Your task to perform on an android device: turn notification dots on Image 0: 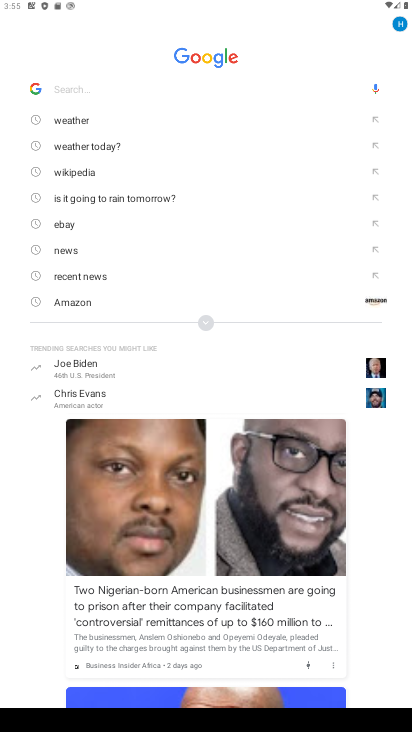
Step 0: press home button
Your task to perform on an android device: turn notification dots on Image 1: 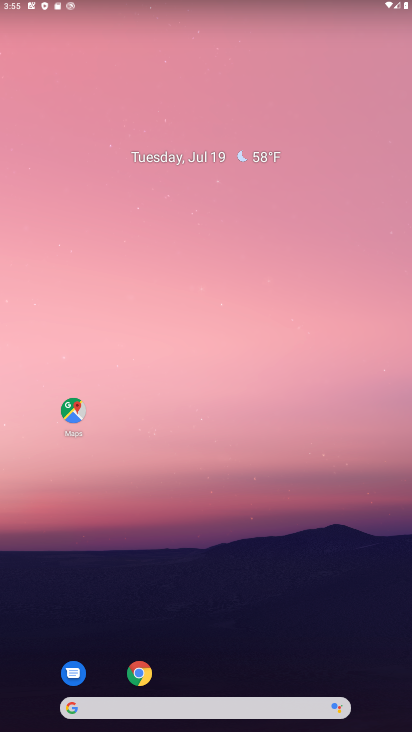
Step 1: drag from (238, 562) to (285, 20)
Your task to perform on an android device: turn notification dots on Image 2: 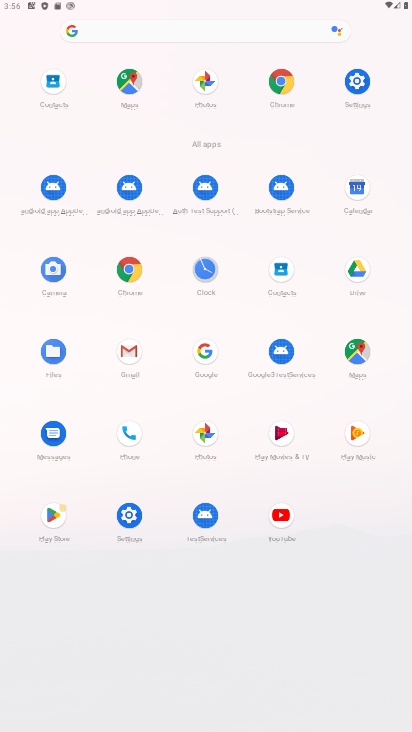
Step 2: click (136, 515)
Your task to perform on an android device: turn notification dots on Image 3: 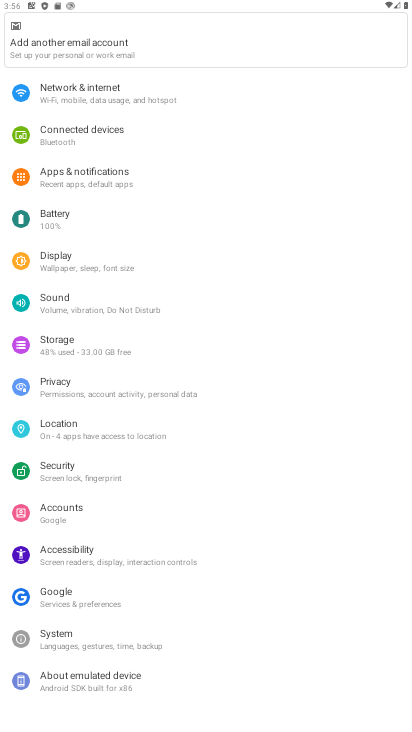
Step 3: click (79, 172)
Your task to perform on an android device: turn notification dots on Image 4: 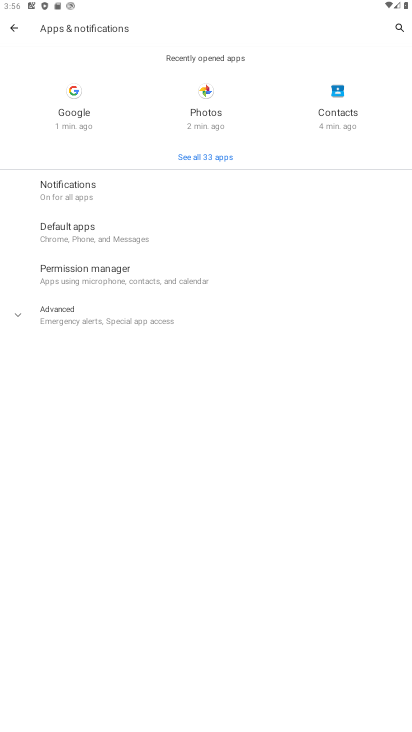
Step 4: click (90, 186)
Your task to perform on an android device: turn notification dots on Image 5: 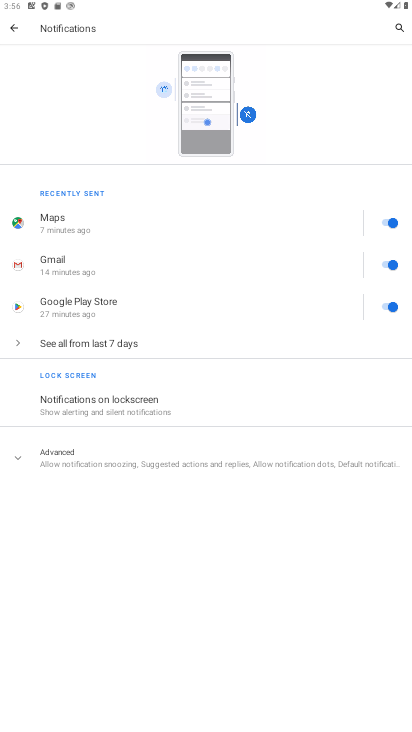
Step 5: click (81, 453)
Your task to perform on an android device: turn notification dots on Image 6: 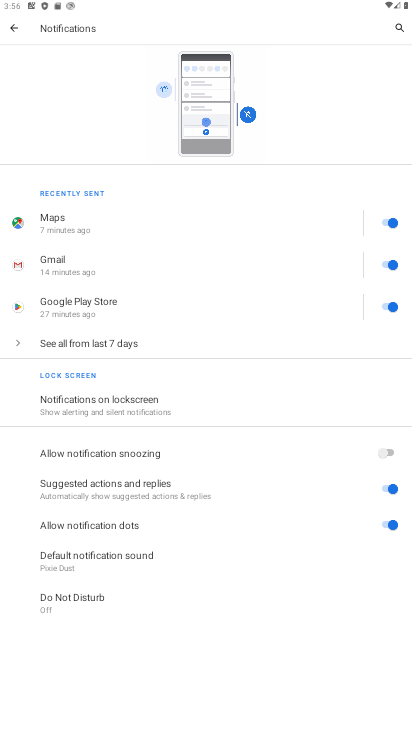
Step 6: task complete